Your task to perform on an android device: turn on improve location accuracy Image 0: 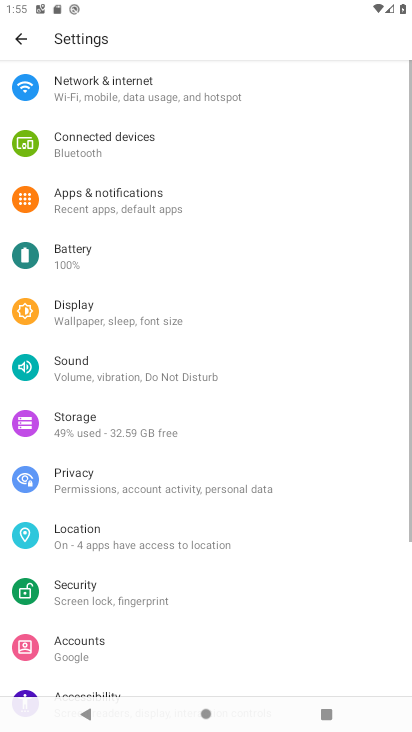
Step 0: press home button
Your task to perform on an android device: turn on improve location accuracy Image 1: 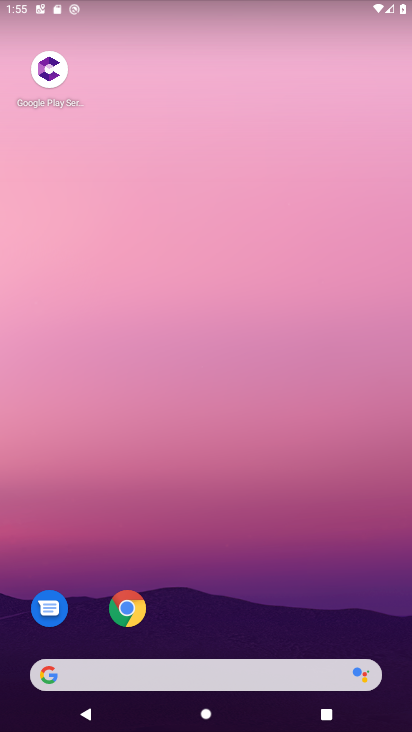
Step 1: drag from (209, 588) to (240, 64)
Your task to perform on an android device: turn on improve location accuracy Image 2: 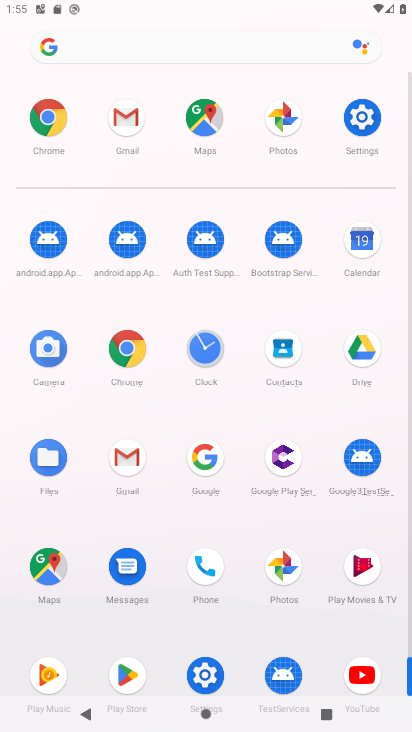
Step 2: click (371, 133)
Your task to perform on an android device: turn on improve location accuracy Image 3: 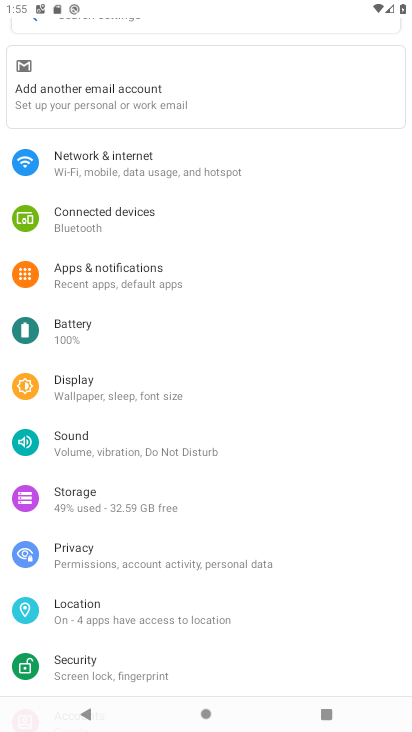
Step 3: click (106, 607)
Your task to perform on an android device: turn on improve location accuracy Image 4: 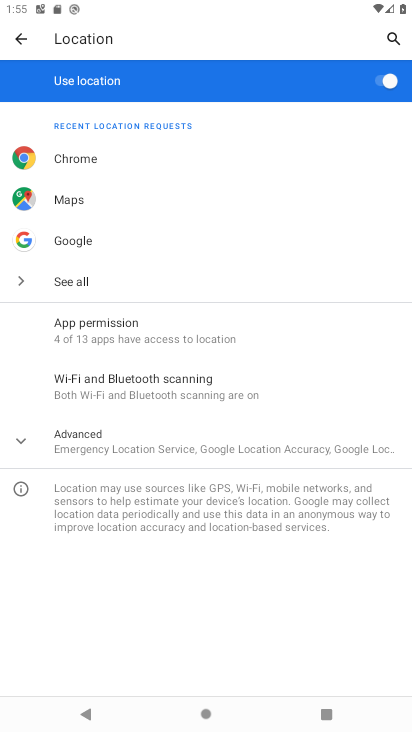
Step 4: click (129, 448)
Your task to perform on an android device: turn on improve location accuracy Image 5: 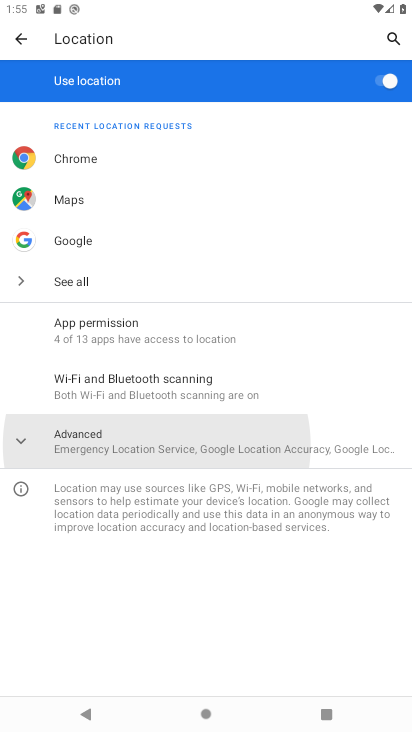
Step 5: drag from (138, 430) to (203, 73)
Your task to perform on an android device: turn on improve location accuracy Image 6: 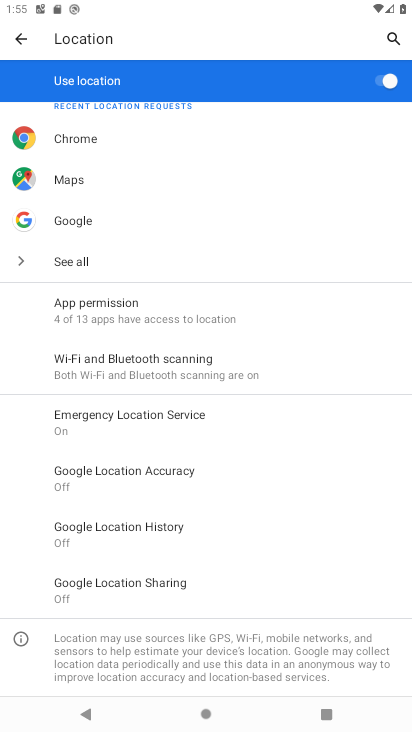
Step 6: click (190, 483)
Your task to perform on an android device: turn on improve location accuracy Image 7: 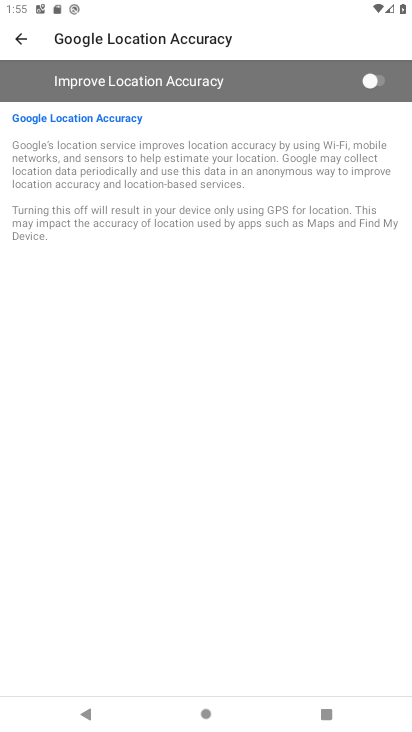
Step 7: click (366, 84)
Your task to perform on an android device: turn on improve location accuracy Image 8: 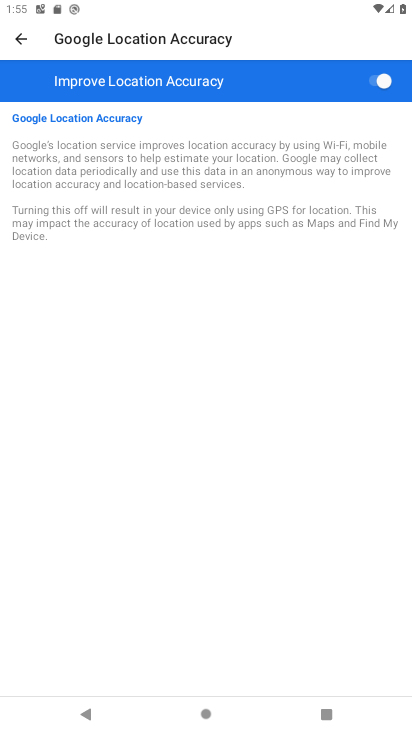
Step 8: task complete